Your task to perform on an android device: check android version Image 0: 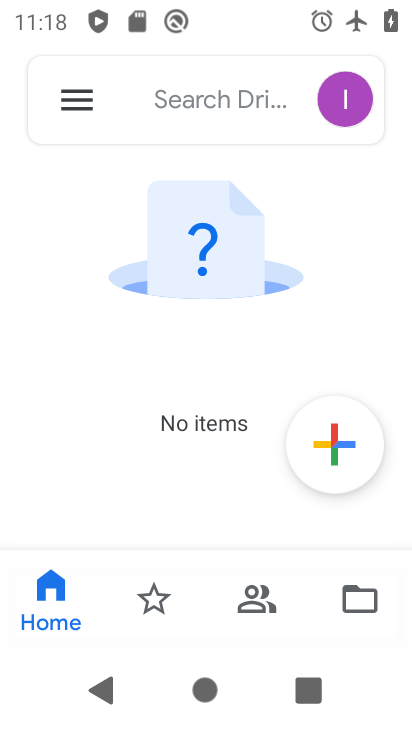
Step 0: press home button
Your task to perform on an android device: check android version Image 1: 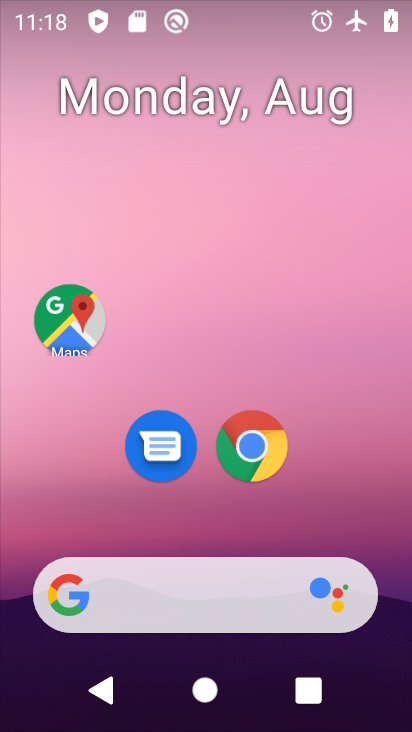
Step 1: drag from (212, 237) to (280, 6)
Your task to perform on an android device: check android version Image 2: 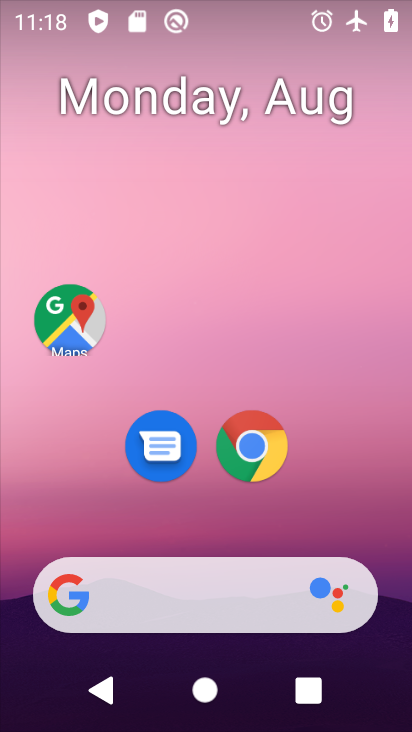
Step 2: drag from (238, 539) to (217, 100)
Your task to perform on an android device: check android version Image 3: 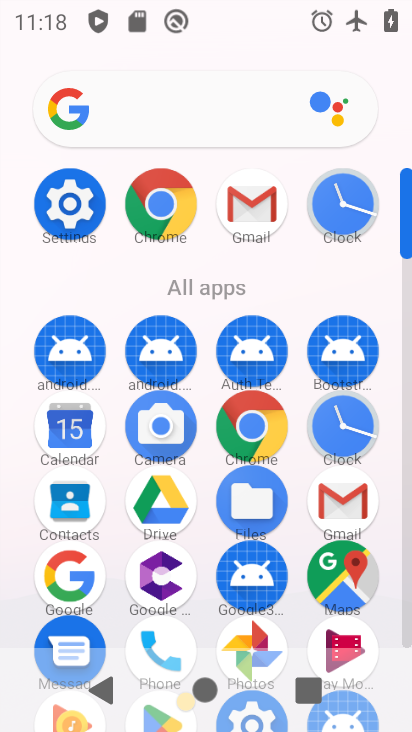
Step 3: click (75, 224)
Your task to perform on an android device: check android version Image 4: 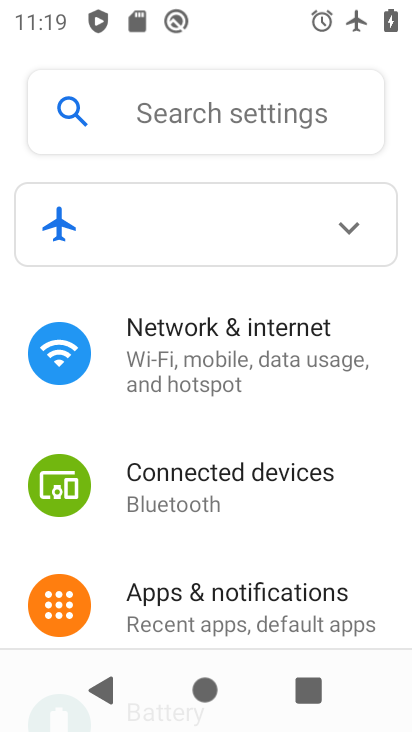
Step 4: drag from (231, 490) to (250, 35)
Your task to perform on an android device: check android version Image 5: 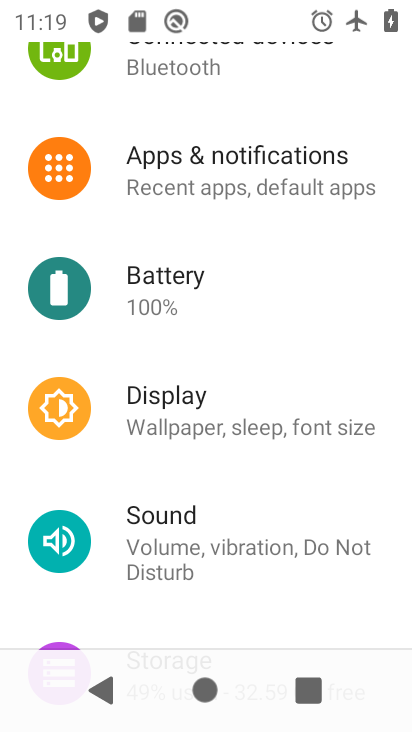
Step 5: drag from (201, 452) to (201, 241)
Your task to perform on an android device: check android version Image 6: 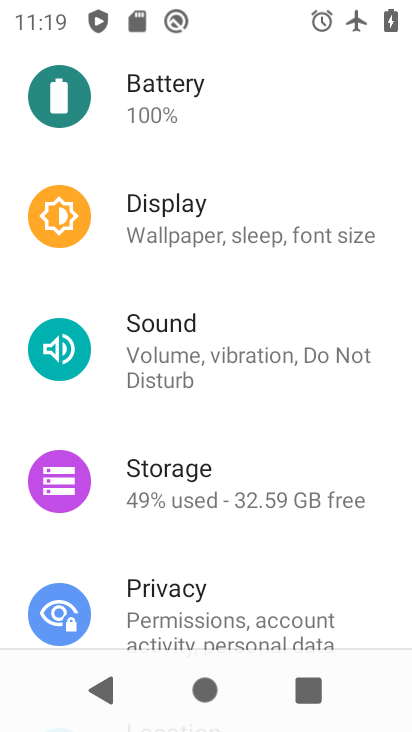
Step 6: drag from (210, 610) to (230, 139)
Your task to perform on an android device: check android version Image 7: 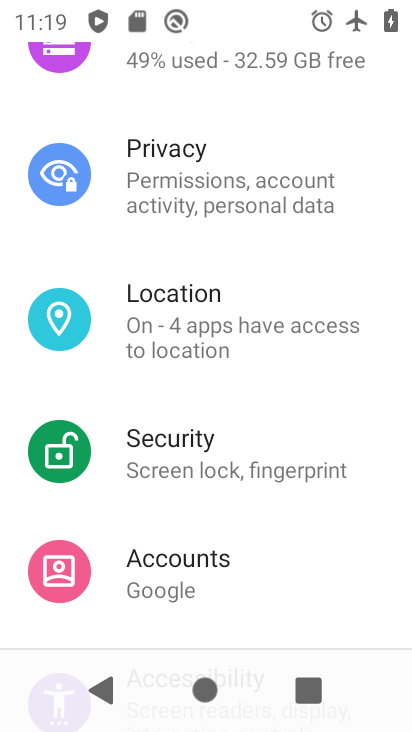
Step 7: drag from (233, 561) to (238, 105)
Your task to perform on an android device: check android version Image 8: 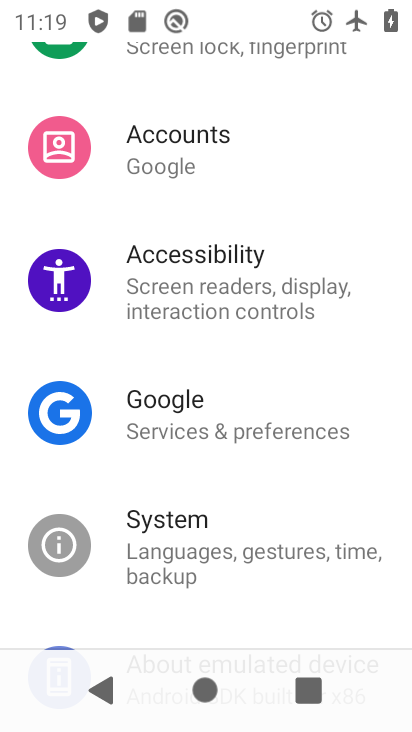
Step 8: drag from (192, 565) to (238, 0)
Your task to perform on an android device: check android version Image 9: 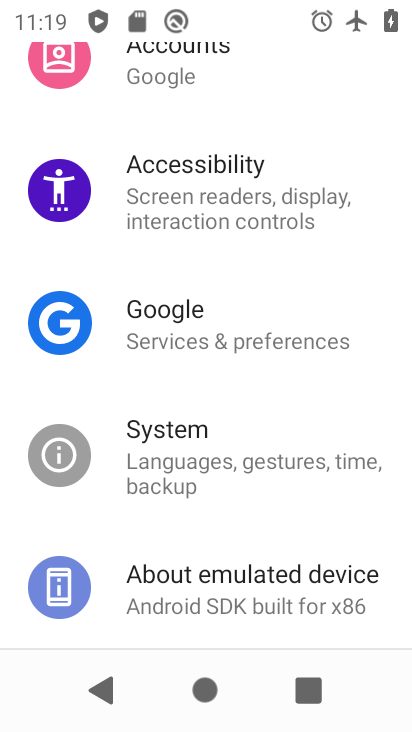
Step 9: drag from (254, 552) to (257, 205)
Your task to perform on an android device: check android version Image 10: 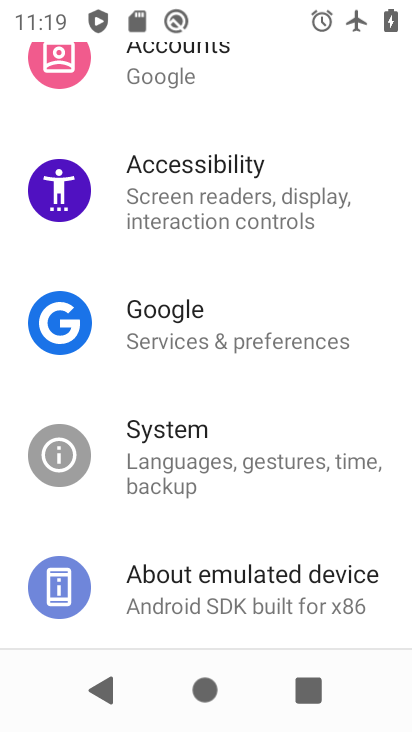
Step 10: click (209, 582)
Your task to perform on an android device: check android version Image 11: 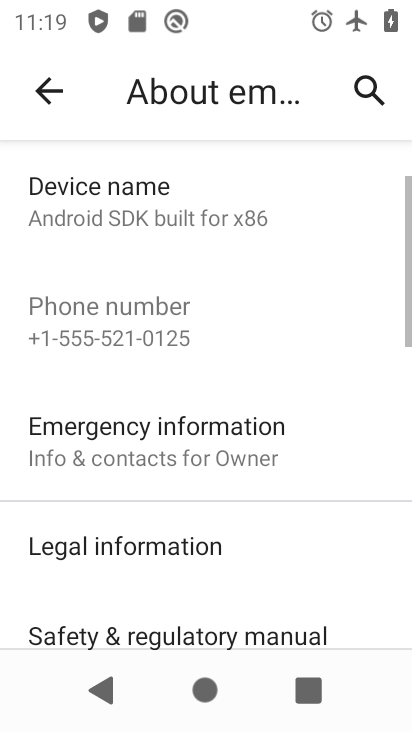
Step 11: click (188, 433)
Your task to perform on an android device: check android version Image 12: 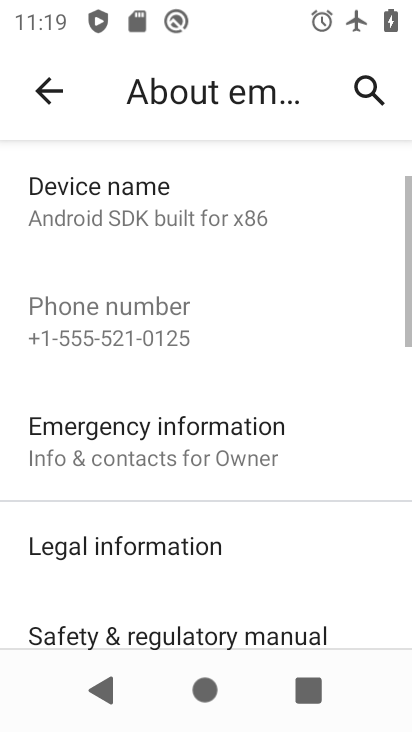
Step 12: drag from (179, 385) to (187, 262)
Your task to perform on an android device: check android version Image 13: 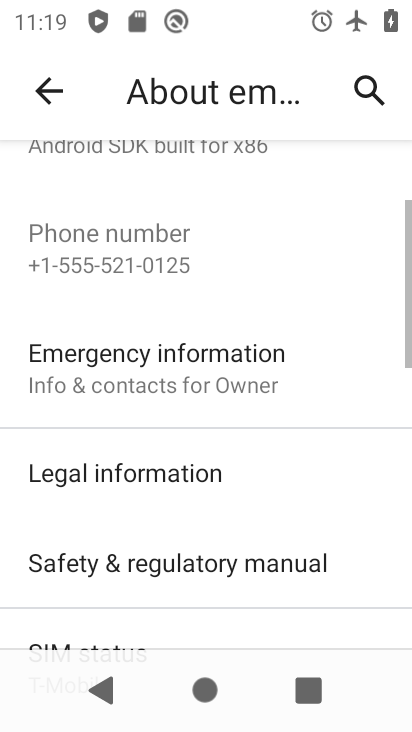
Step 13: drag from (189, 488) to (217, 151)
Your task to perform on an android device: check android version Image 14: 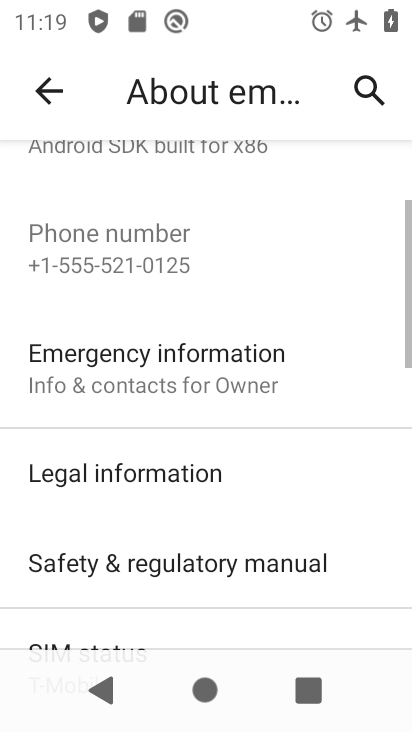
Step 14: drag from (190, 604) to (190, 294)
Your task to perform on an android device: check android version Image 15: 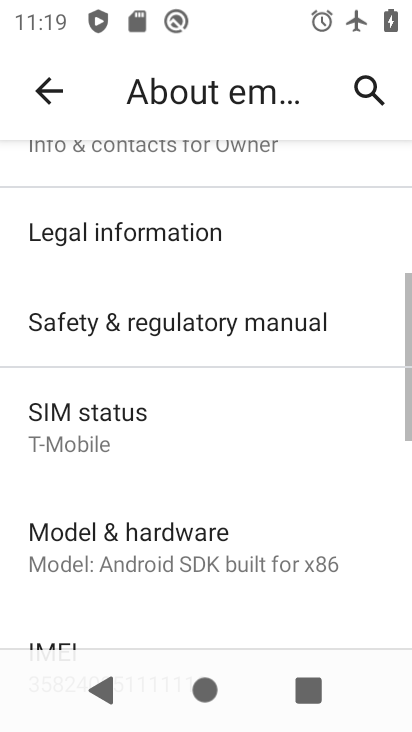
Step 15: drag from (186, 572) to (240, 281)
Your task to perform on an android device: check android version Image 16: 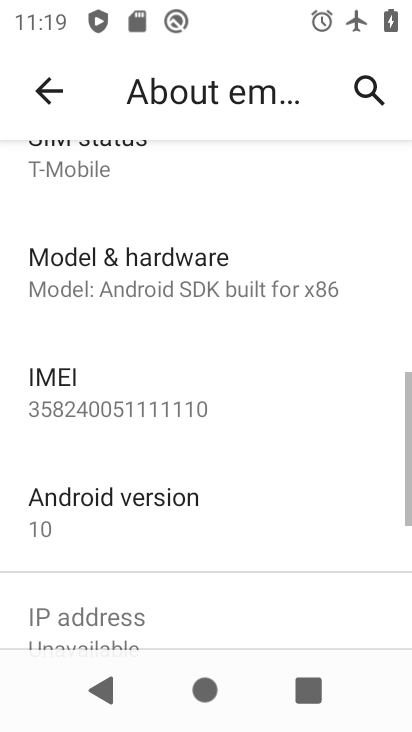
Step 16: click (104, 521)
Your task to perform on an android device: check android version Image 17: 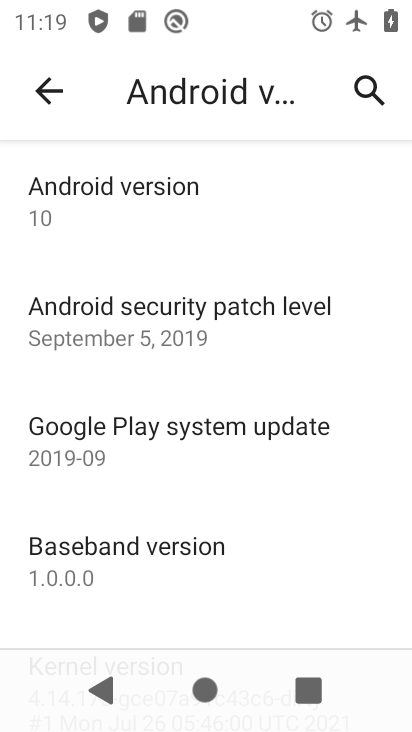
Step 17: task complete